Your task to perform on an android device: Open the map Image 0: 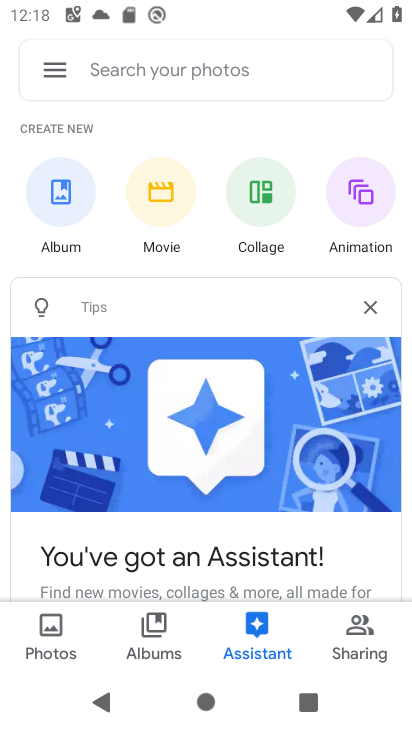
Step 0: press home button
Your task to perform on an android device: Open the map Image 1: 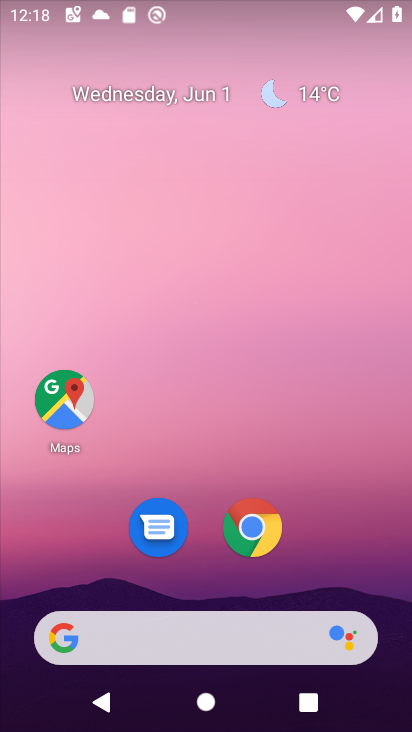
Step 1: click (62, 399)
Your task to perform on an android device: Open the map Image 2: 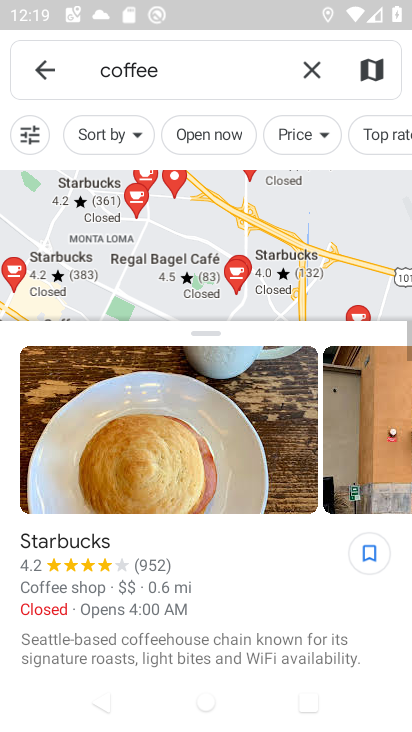
Step 2: click (304, 78)
Your task to perform on an android device: Open the map Image 3: 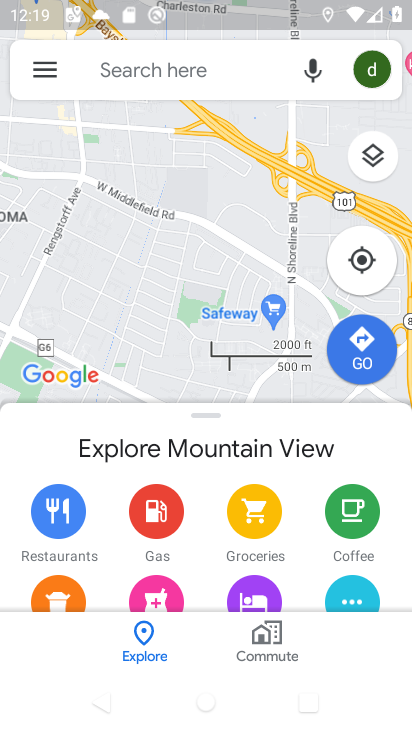
Step 3: task complete